Your task to perform on an android device: Add asus rog to the cart on bestbuy Image 0: 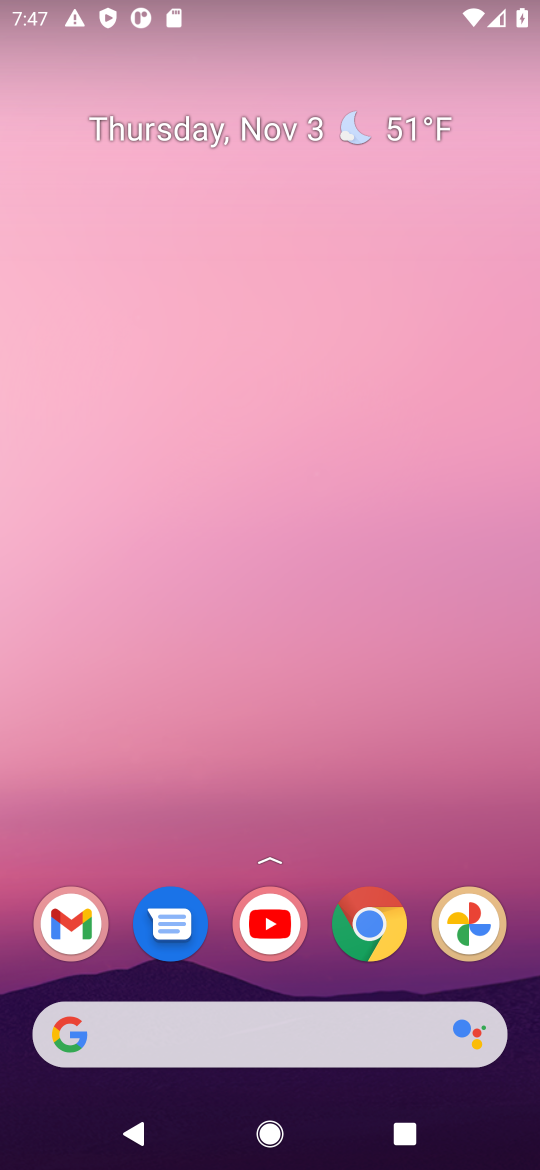
Step 0: drag from (282, 973) to (273, 126)
Your task to perform on an android device: Add asus rog to the cart on bestbuy Image 1: 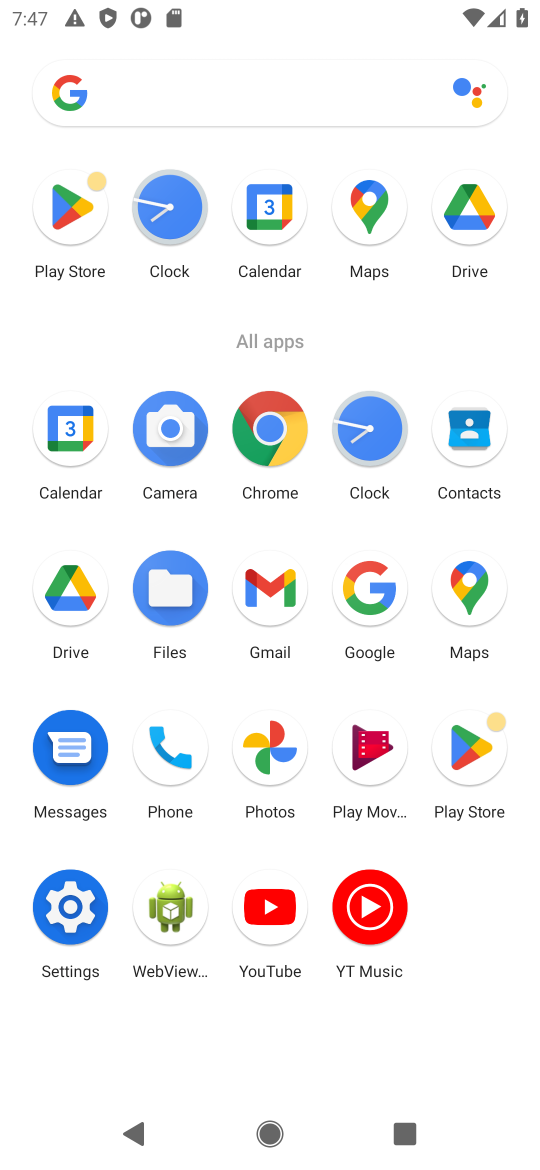
Step 1: click (355, 567)
Your task to perform on an android device: Add asus rog to the cart on bestbuy Image 2: 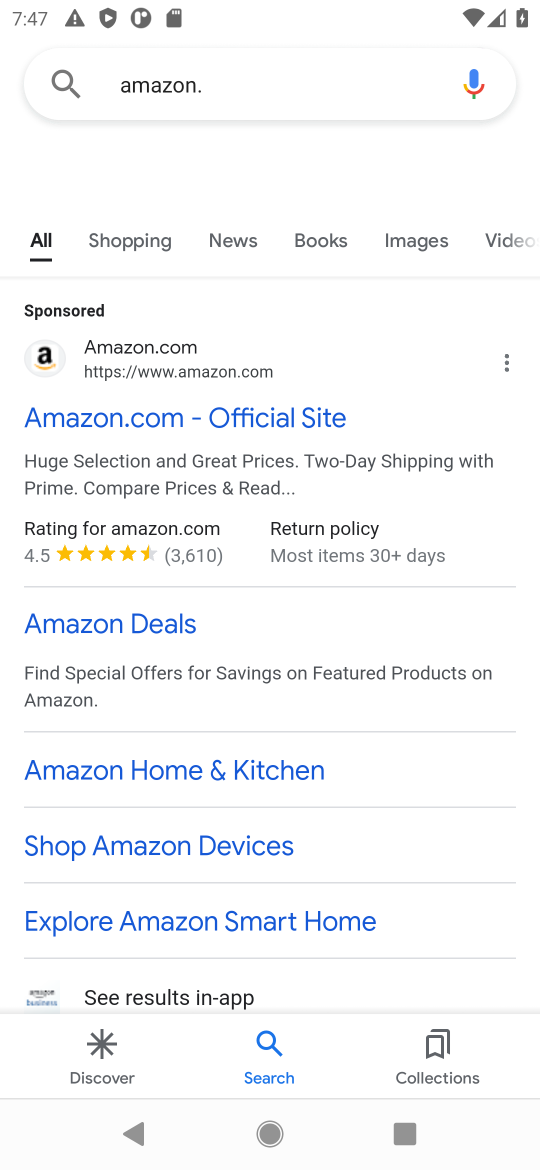
Step 2: click (286, 68)
Your task to perform on an android device: Add asus rog to the cart on bestbuy Image 3: 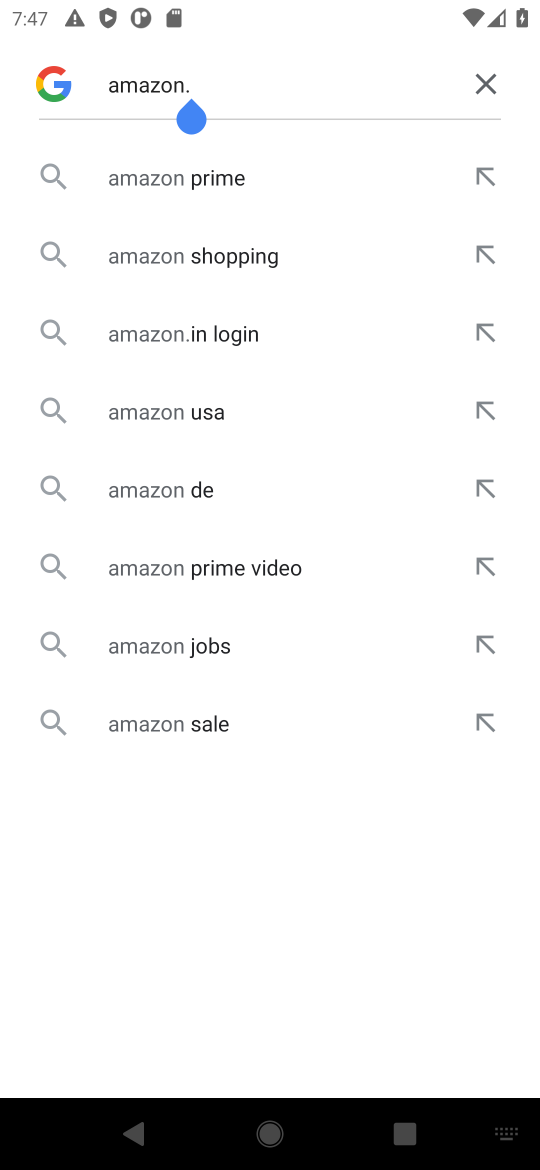
Step 3: click (493, 93)
Your task to perform on an android device: Add asus rog to the cart on bestbuy Image 4: 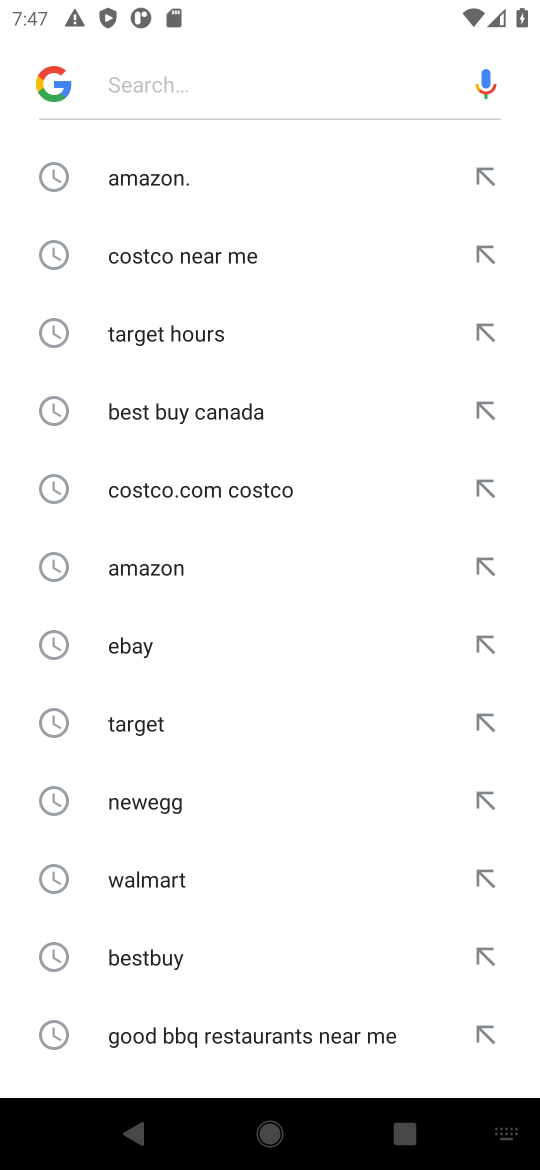
Step 4: click (181, 77)
Your task to perform on an android device: Add asus rog to the cart on bestbuy Image 5: 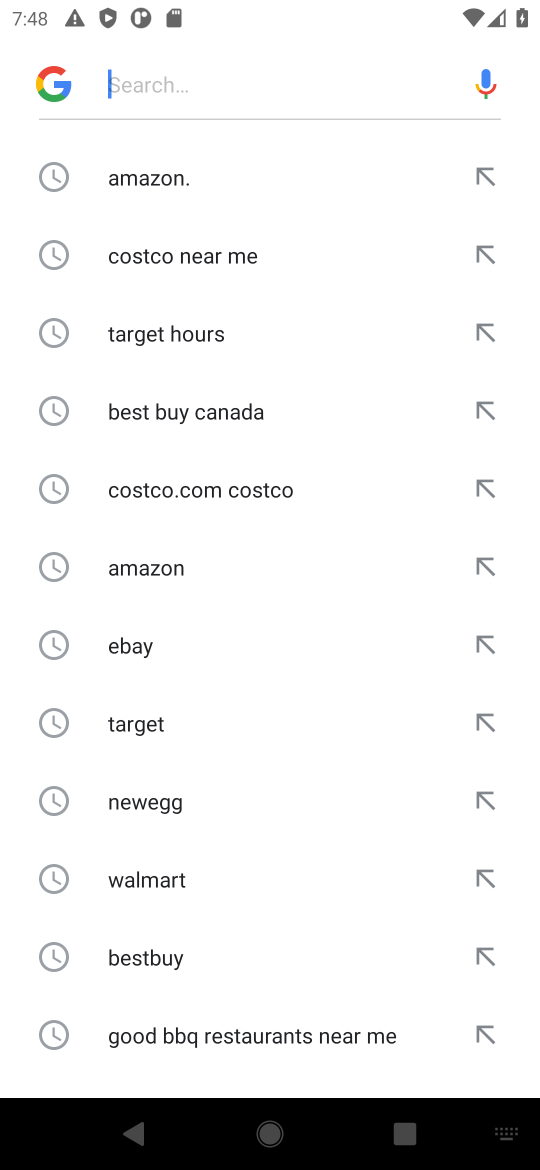
Step 5: type "bestbuy "
Your task to perform on an android device: Add asus rog to the cart on bestbuy Image 6: 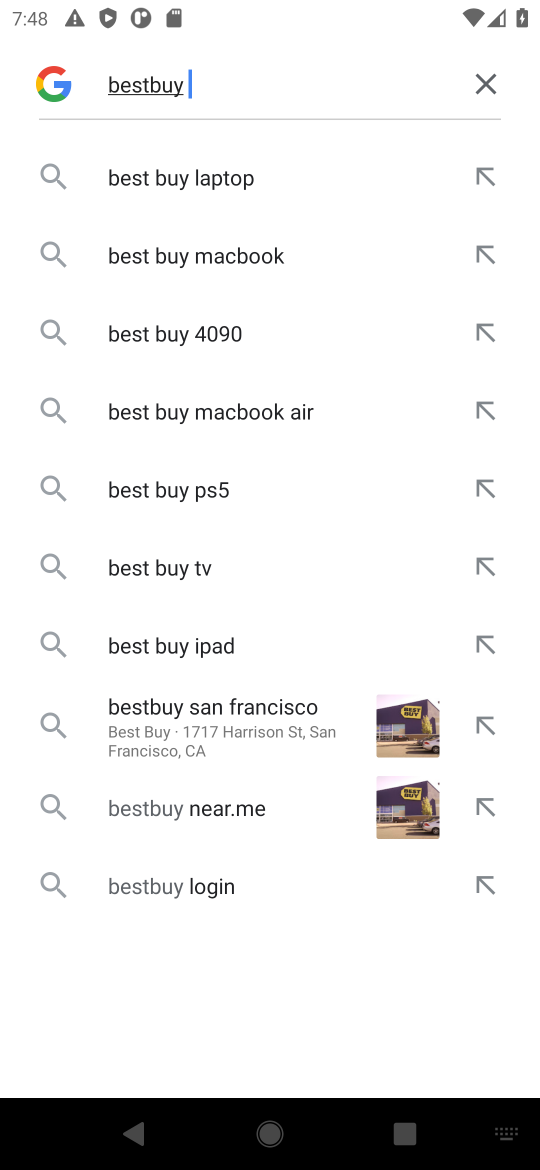
Step 6: click (176, 800)
Your task to perform on an android device: Add asus rog to the cart on bestbuy Image 7: 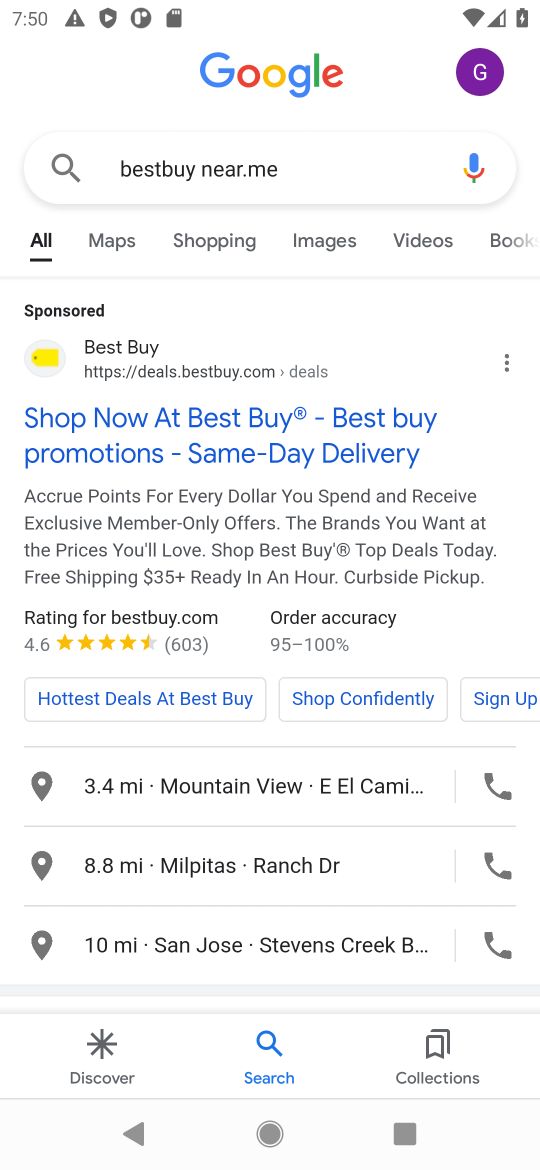
Step 7: click (48, 365)
Your task to perform on an android device: Add asus rog to the cart on bestbuy Image 8: 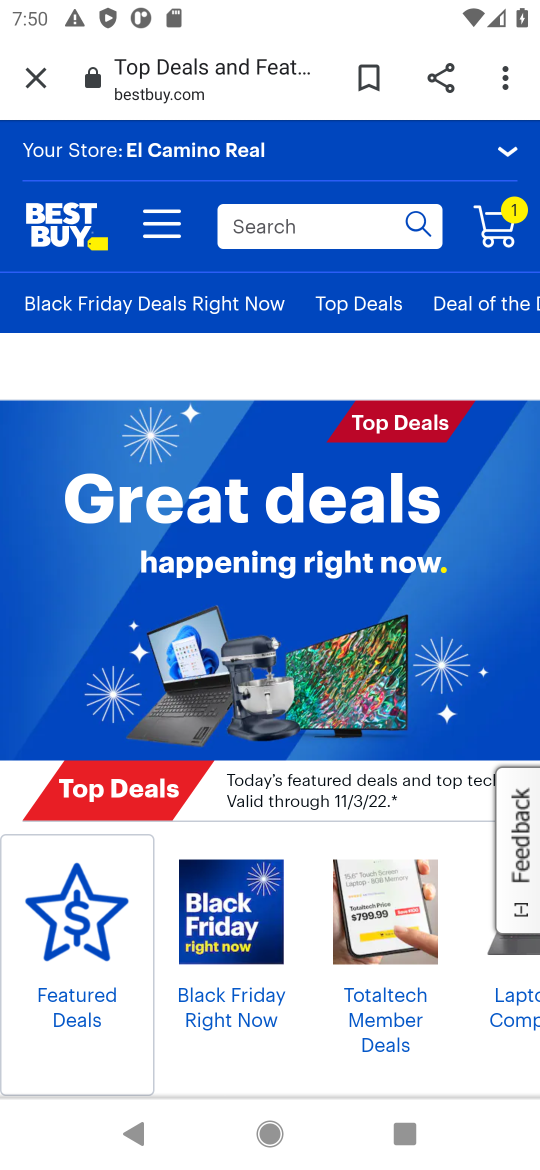
Step 8: click (314, 220)
Your task to perform on an android device: Add asus rog to the cart on bestbuy Image 9: 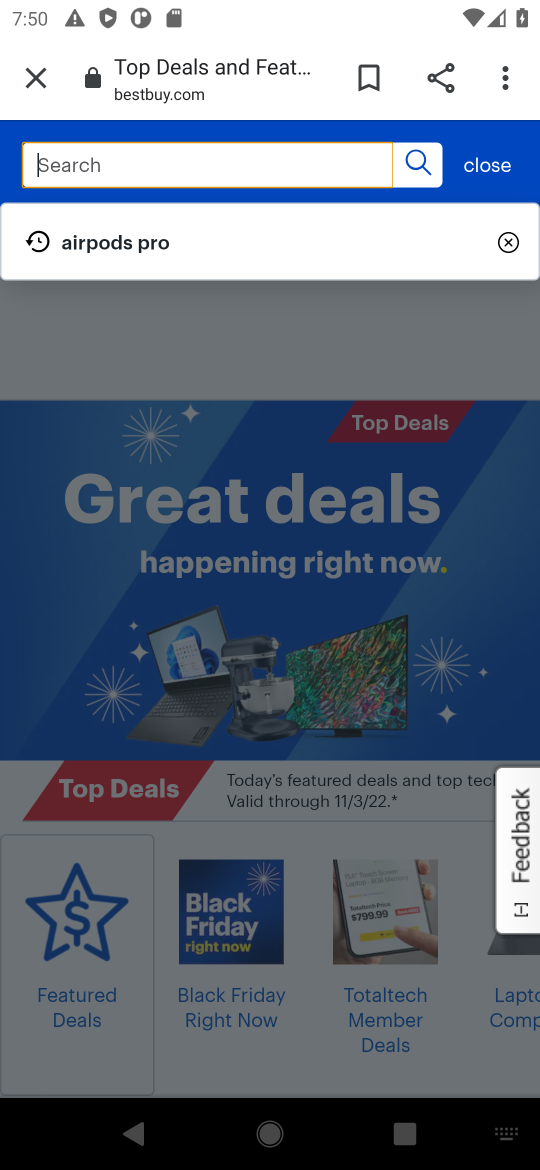
Step 9: type " asus rog "
Your task to perform on an android device: Add asus rog to the cart on bestbuy Image 10: 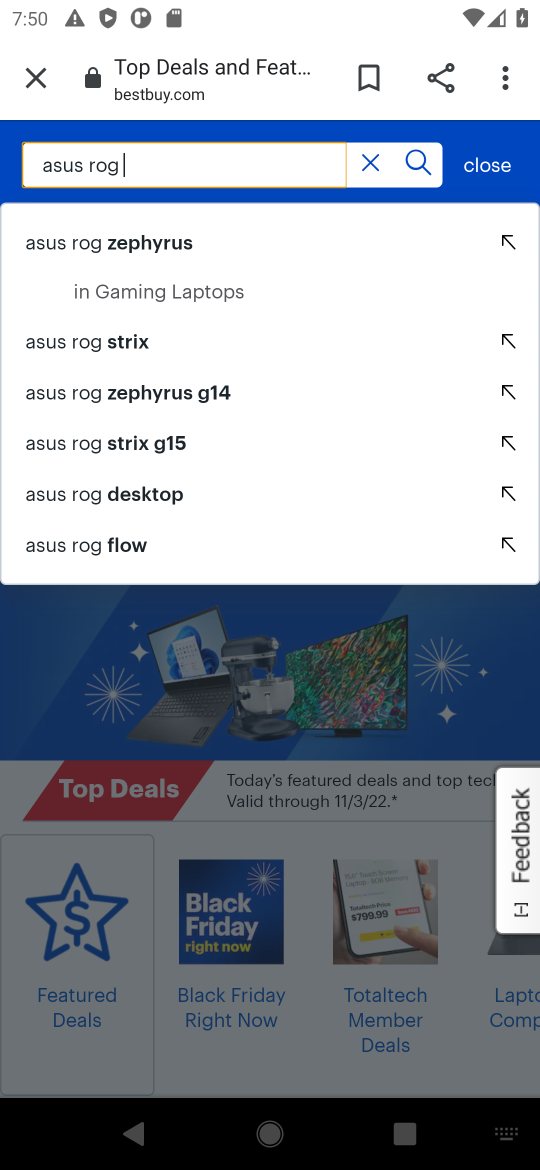
Step 10: click (74, 256)
Your task to perform on an android device: Add asus rog to the cart on bestbuy Image 11: 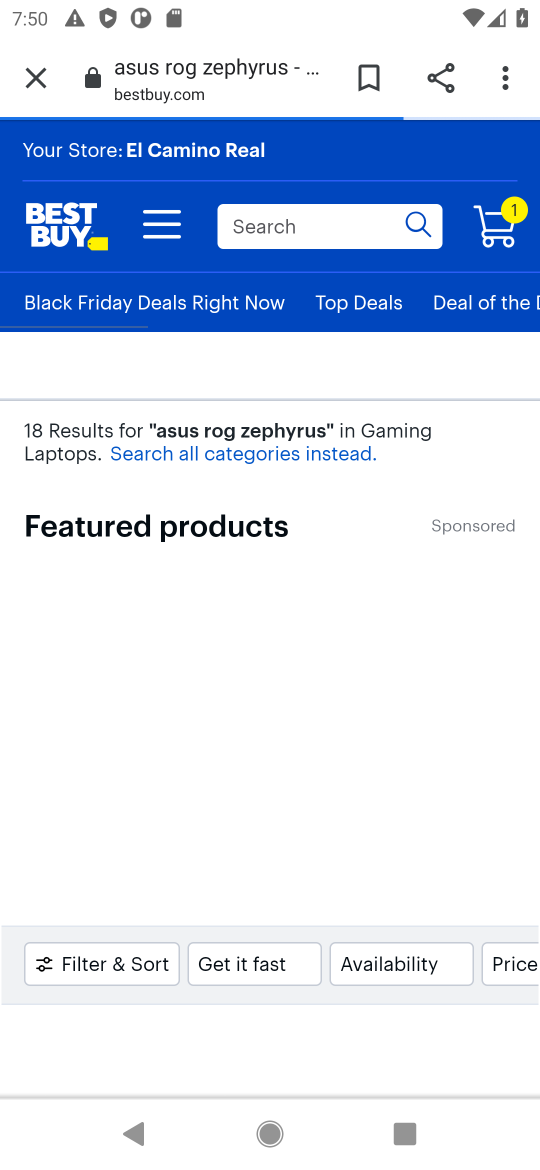
Step 11: click (423, 155)
Your task to perform on an android device: Add asus rog to the cart on bestbuy Image 12: 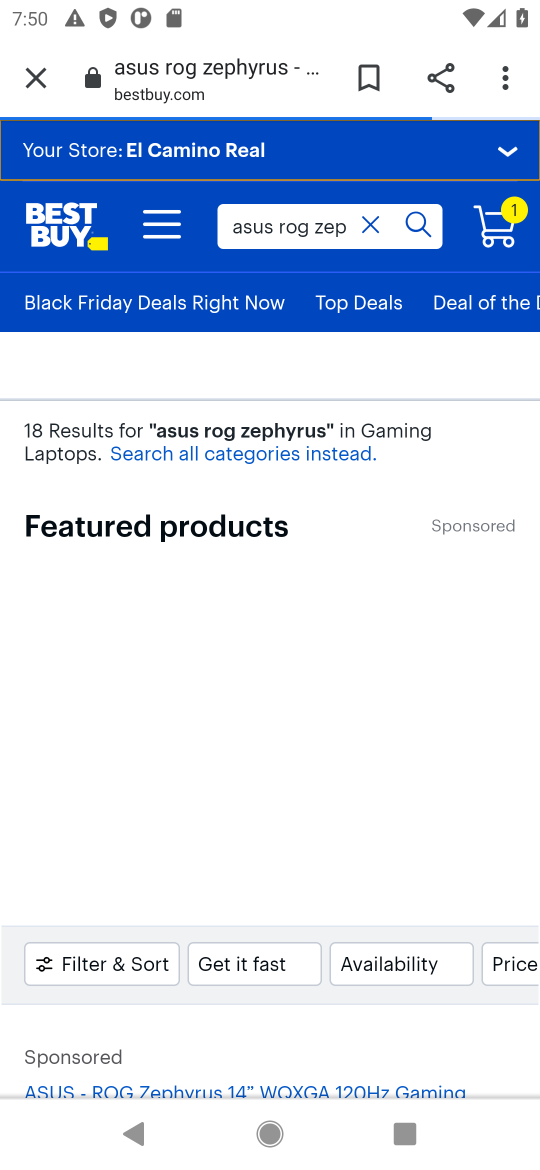
Step 12: click (410, 219)
Your task to perform on an android device: Add asus rog to the cart on bestbuy Image 13: 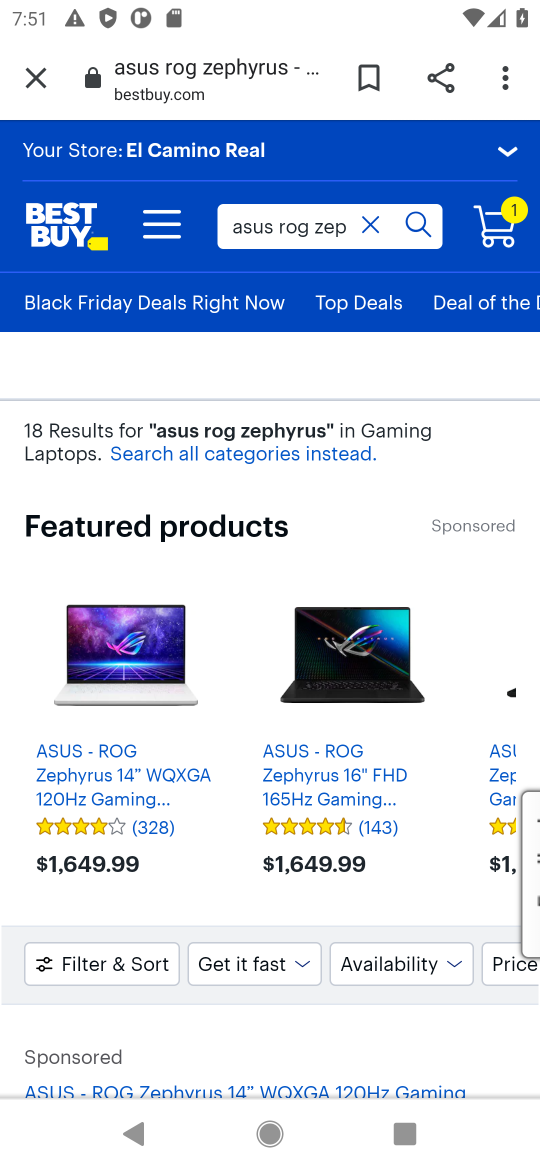
Step 13: click (98, 749)
Your task to perform on an android device: Add asus rog to the cart on bestbuy Image 14: 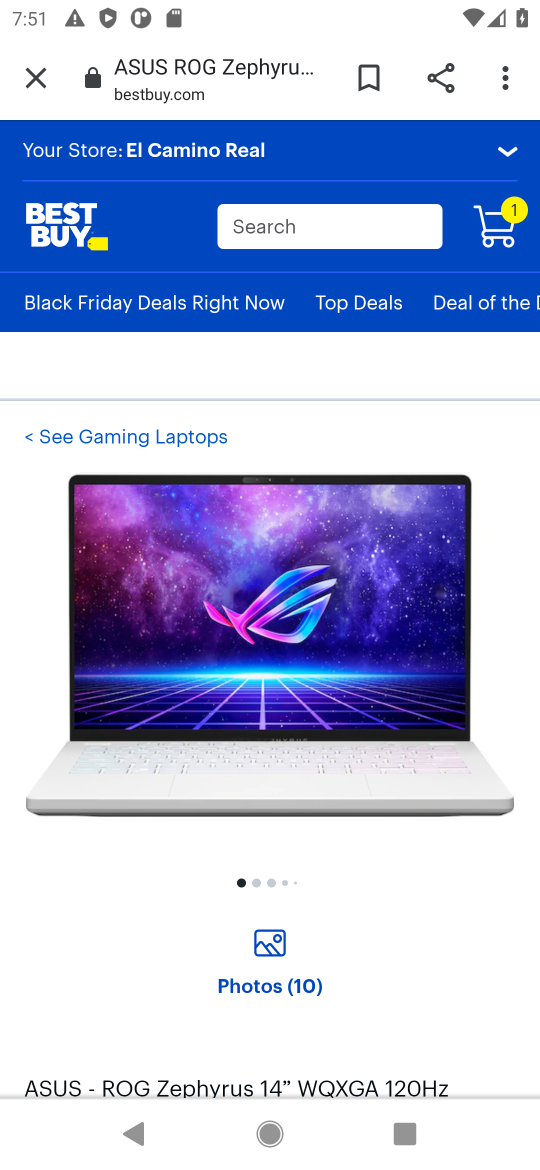
Step 14: drag from (297, 1006) to (420, 395)
Your task to perform on an android device: Add asus rog to the cart on bestbuy Image 15: 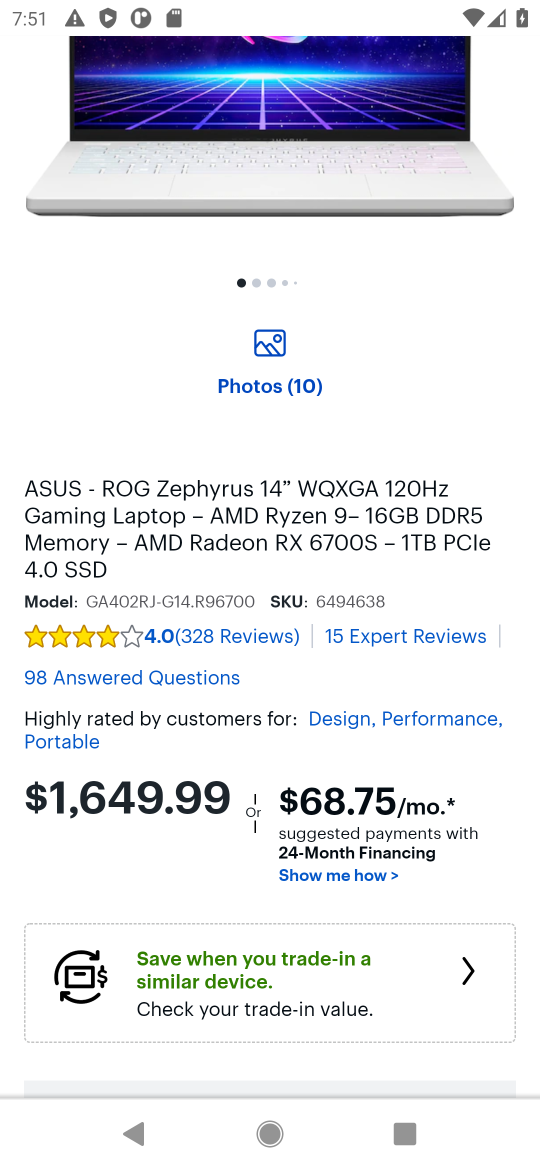
Step 15: drag from (277, 939) to (321, 288)
Your task to perform on an android device: Add asus rog to the cart on bestbuy Image 16: 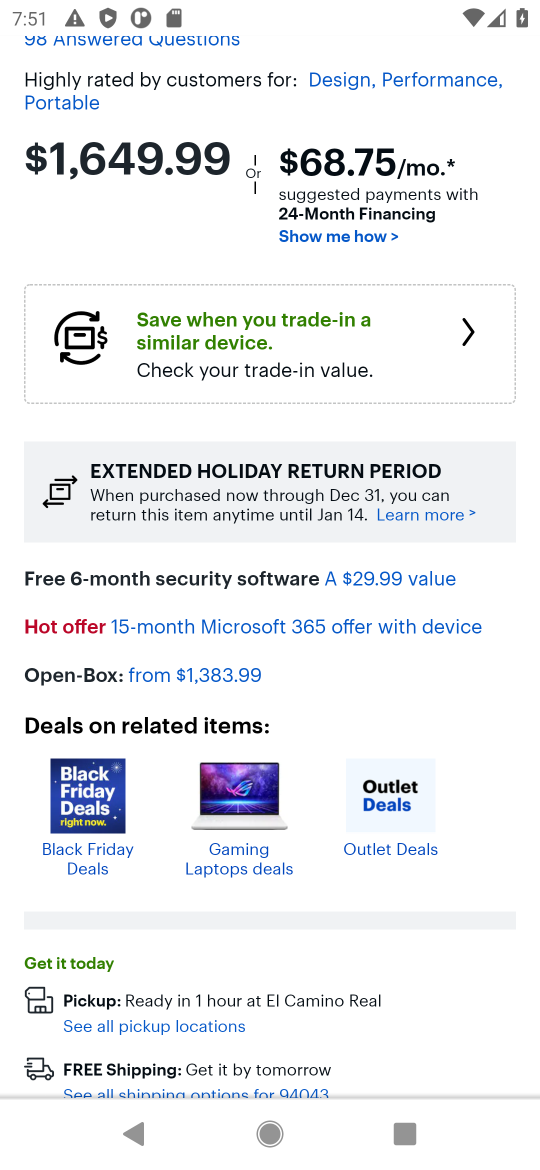
Step 16: drag from (309, 976) to (396, 261)
Your task to perform on an android device: Add asus rog to the cart on bestbuy Image 17: 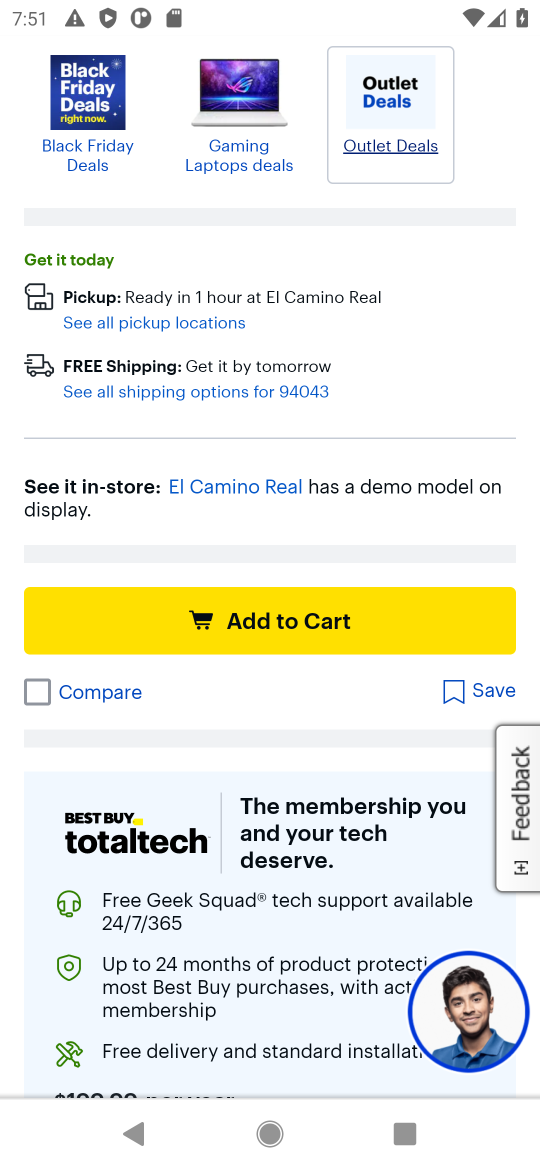
Step 17: click (277, 614)
Your task to perform on an android device: Add asus rog to the cart on bestbuy Image 18: 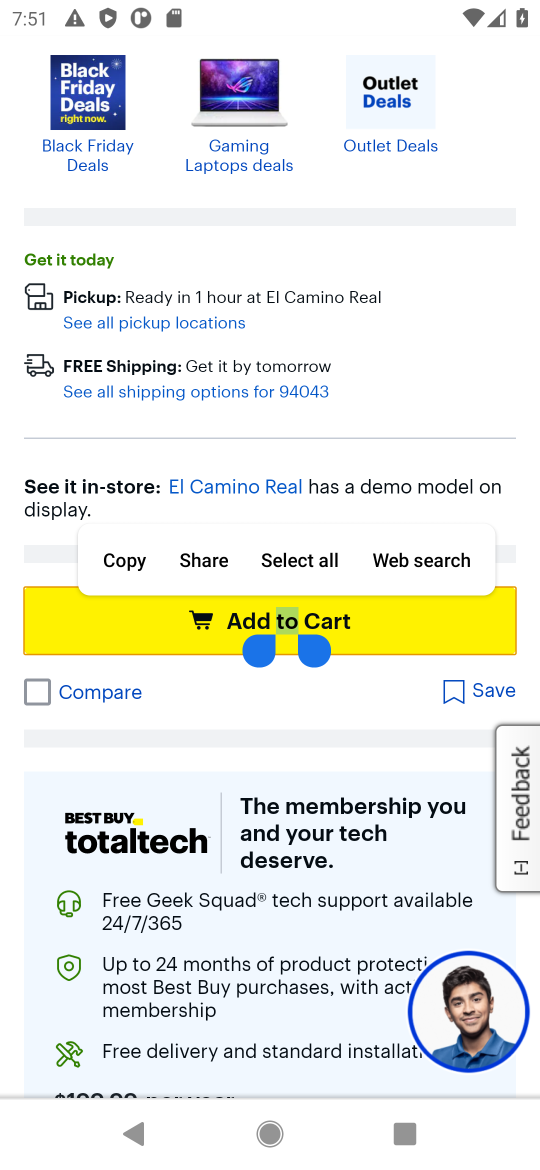
Step 18: click (123, 638)
Your task to perform on an android device: Add asus rog to the cart on bestbuy Image 19: 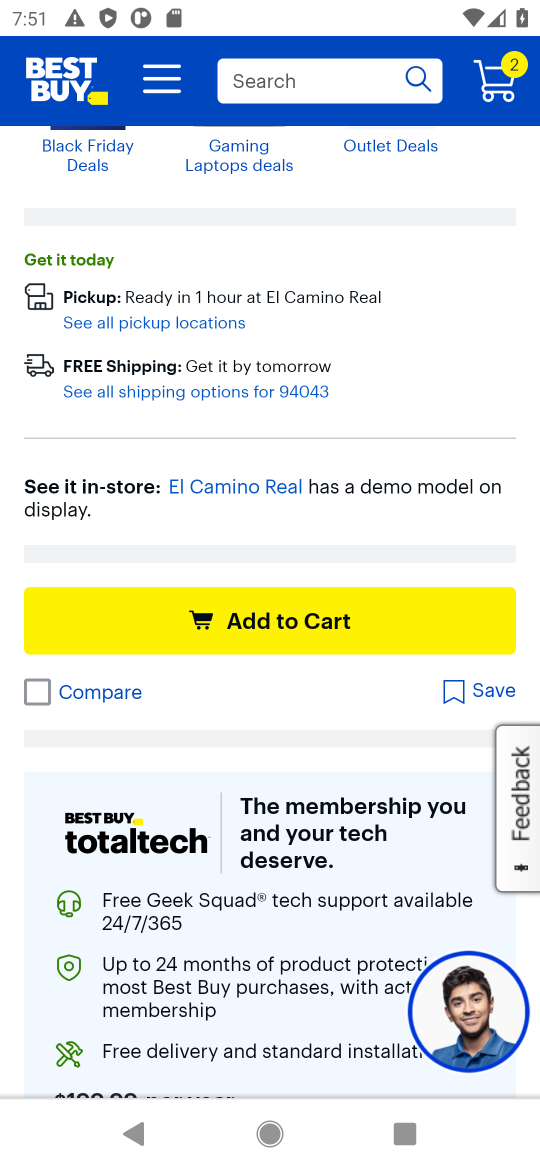
Step 19: click (265, 595)
Your task to perform on an android device: Add asus rog to the cart on bestbuy Image 20: 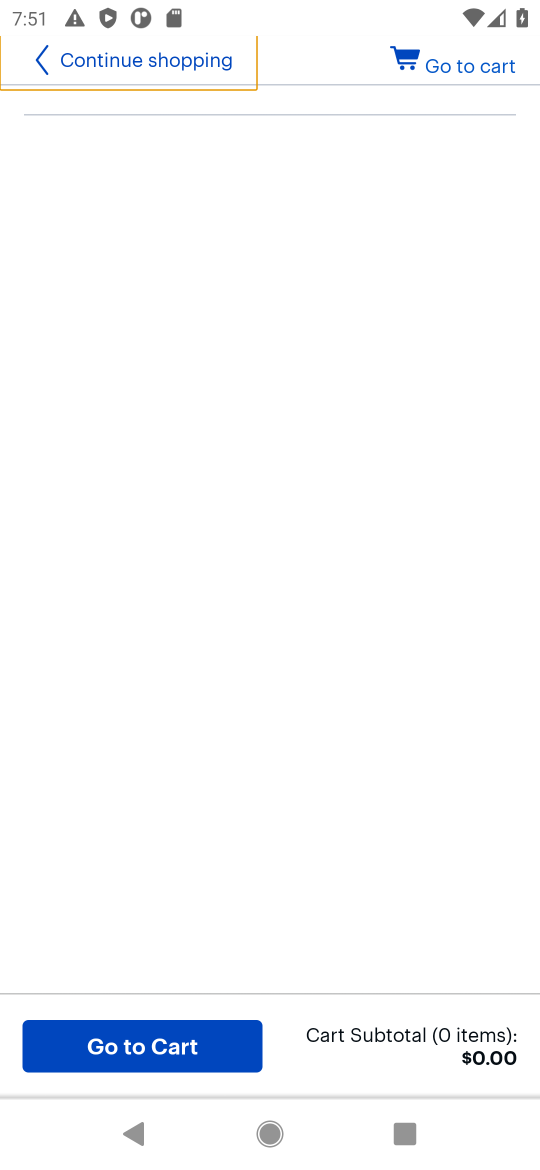
Step 20: task complete